Your task to perform on an android device: Is it going to rain this weekend? Image 0: 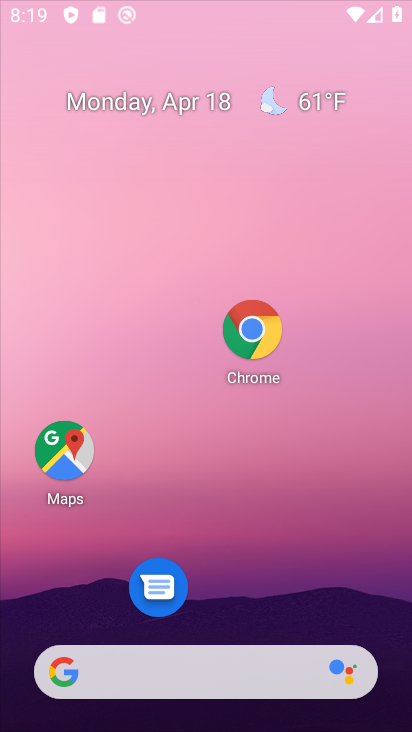
Step 0: click (267, 263)
Your task to perform on an android device: Is it going to rain this weekend? Image 1: 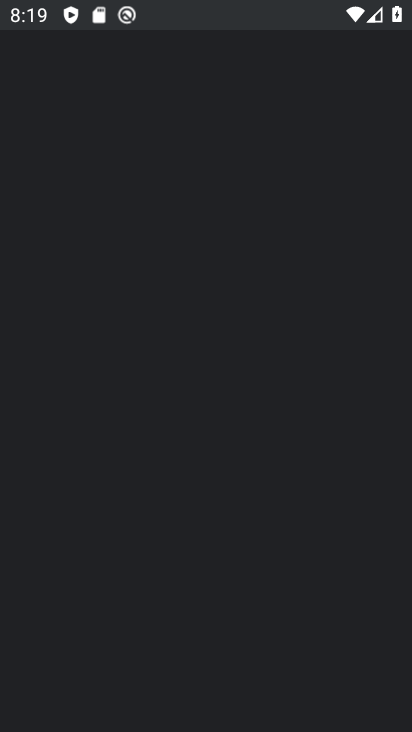
Step 1: drag from (307, 578) to (279, 157)
Your task to perform on an android device: Is it going to rain this weekend? Image 2: 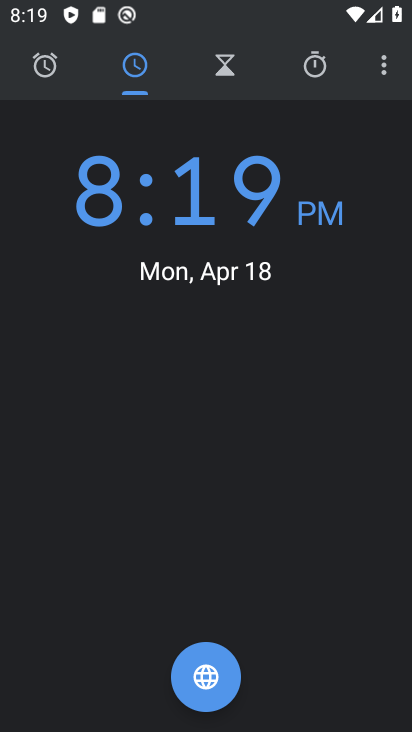
Step 2: press home button
Your task to perform on an android device: Is it going to rain this weekend? Image 3: 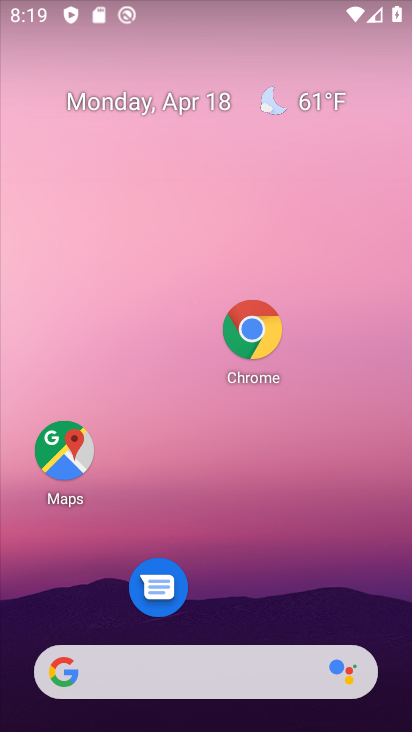
Step 3: drag from (267, 564) to (309, 115)
Your task to perform on an android device: Is it going to rain this weekend? Image 4: 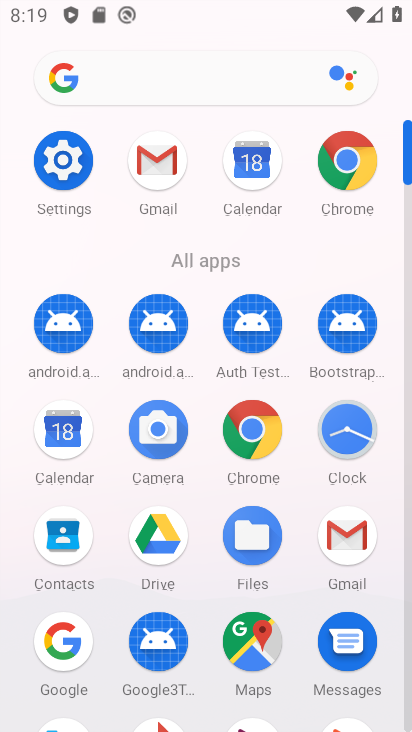
Step 4: click (255, 422)
Your task to perform on an android device: Is it going to rain this weekend? Image 5: 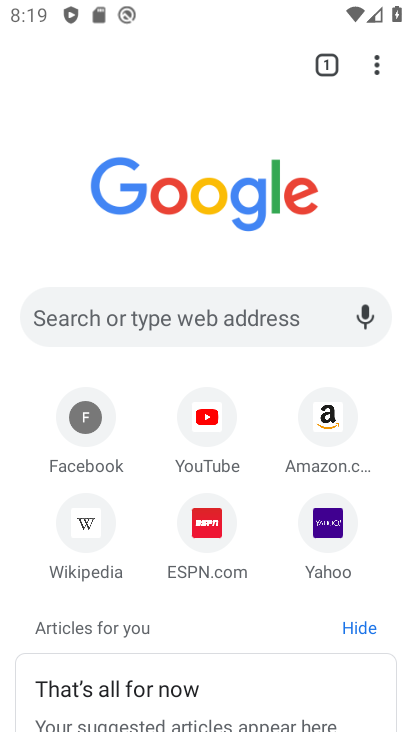
Step 5: click (254, 302)
Your task to perform on an android device: Is it going to rain this weekend? Image 6: 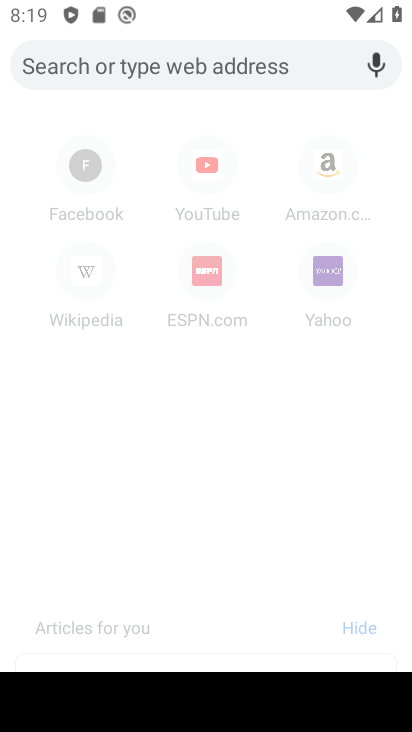
Step 6: type "Is it going to rain this weekend?"
Your task to perform on an android device: Is it going to rain this weekend? Image 7: 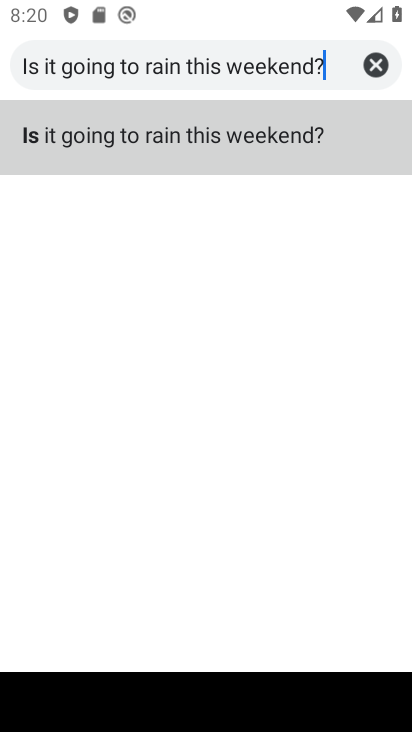
Step 7: click (279, 117)
Your task to perform on an android device: Is it going to rain this weekend? Image 8: 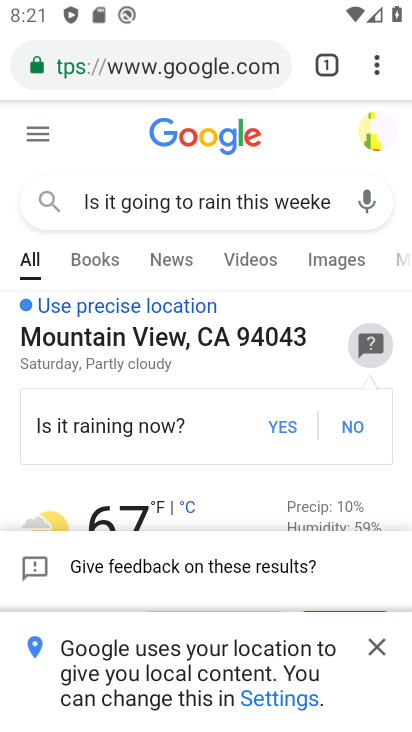
Step 8: task complete